Your task to perform on an android device: Search for vegetarian restaurants on Maps Image 0: 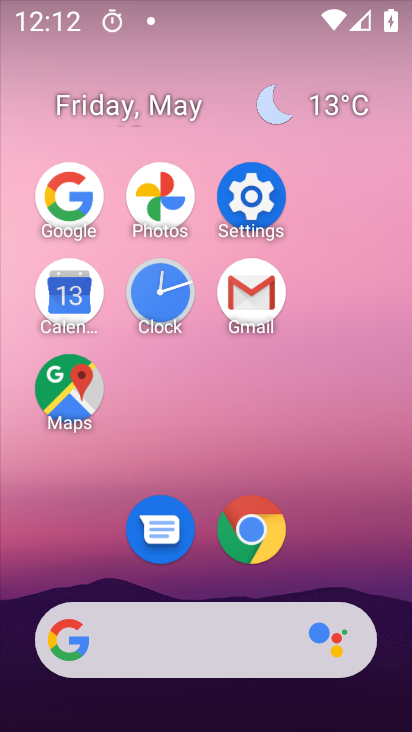
Step 0: click (87, 385)
Your task to perform on an android device: Search for vegetarian restaurants on Maps Image 1: 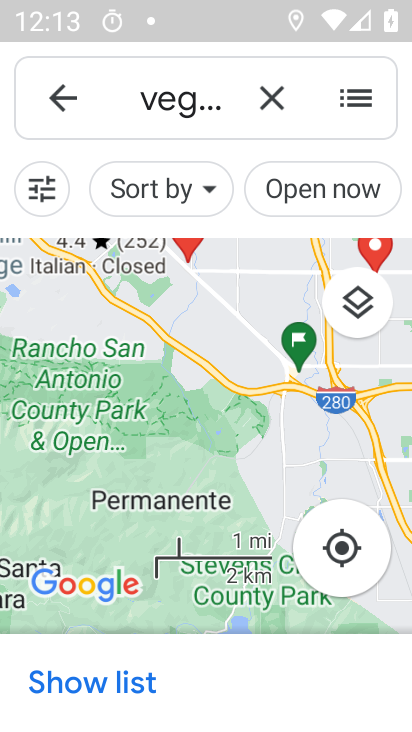
Step 1: click (151, 100)
Your task to perform on an android device: Search for vegetarian restaurants on Maps Image 2: 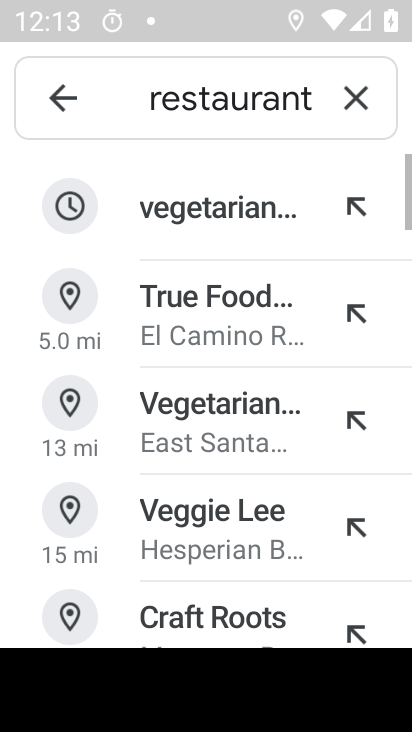
Step 2: task complete